Your task to perform on an android device: Go to settings Image 0: 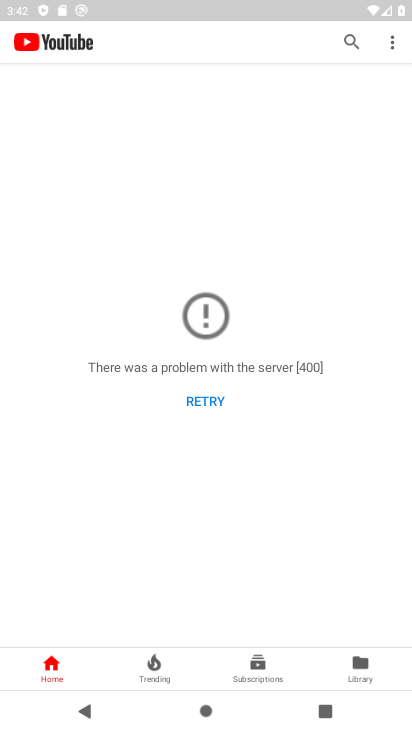
Step 0: press home button
Your task to perform on an android device: Go to settings Image 1: 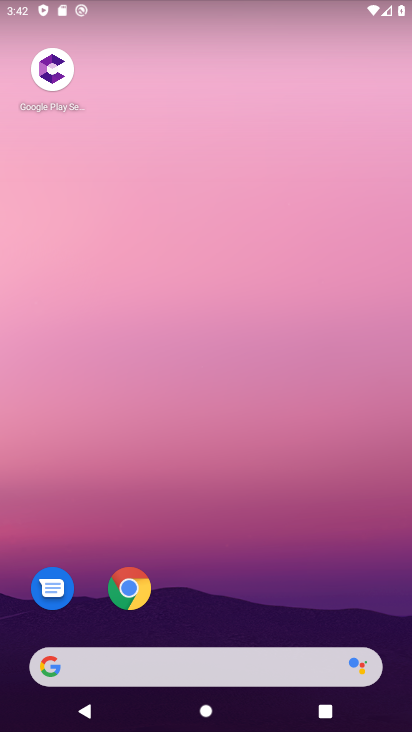
Step 1: drag from (233, 611) to (207, 80)
Your task to perform on an android device: Go to settings Image 2: 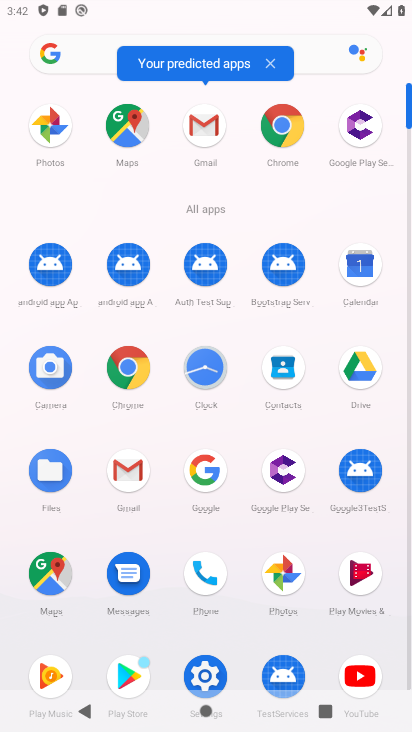
Step 2: click (206, 665)
Your task to perform on an android device: Go to settings Image 3: 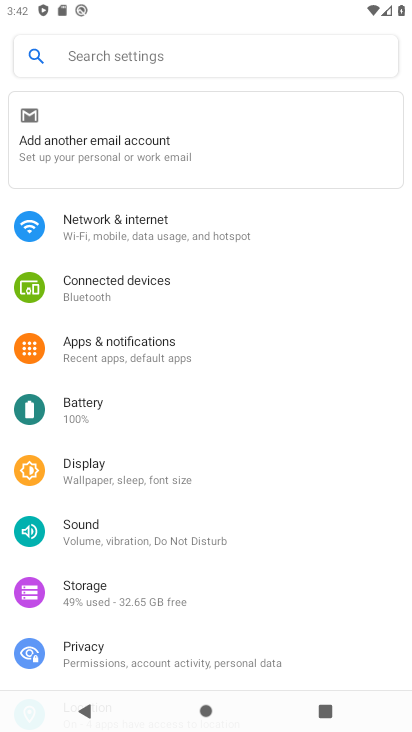
Step 3: task complete